Your task to perform on an android device: turn off priority inbox in the gmail app Image 0: 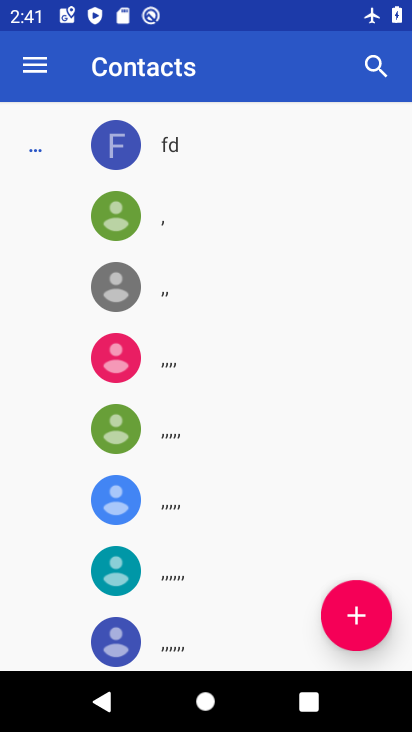
Step 0: press home button
Your task to perform on an android device: turn off priority inbox in the gmail app Image 1: 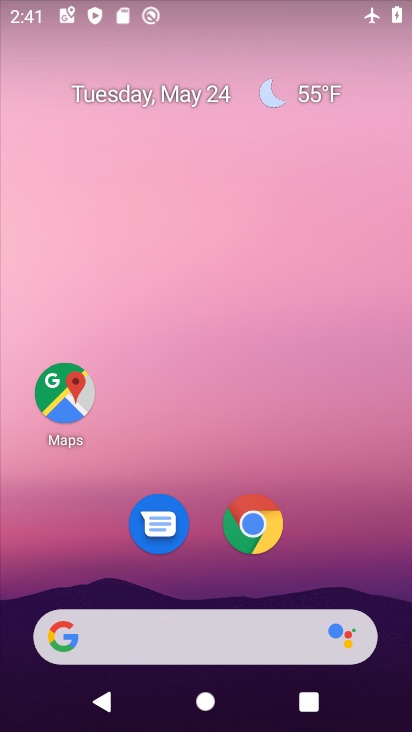
Step 1: drag from (296, 552) to (346, 71)
Your task to perform on an android device: turn off priority inbox in the gmail app Image 2: 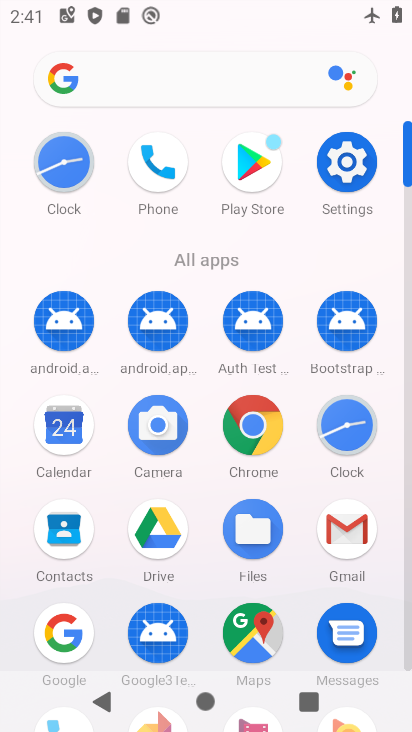
Step 2: click (340, 522)
Your task to perform on an android device: turn off priority inbox in the gmail app Image 3: 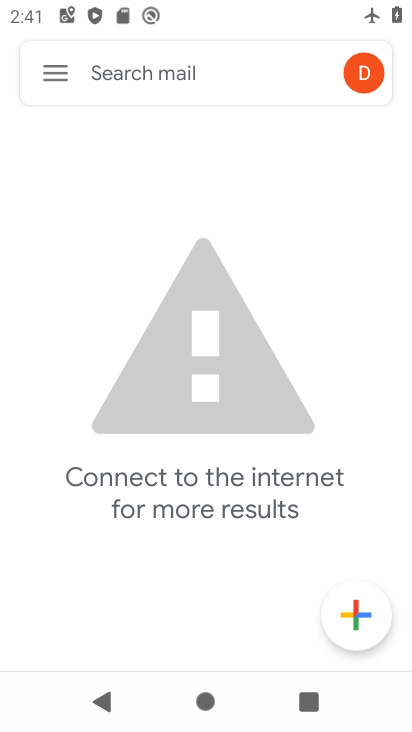
Step 3: click (57, 72)
Your task to perform on an android device: turn off priority inbox in the gmail app Image 4: 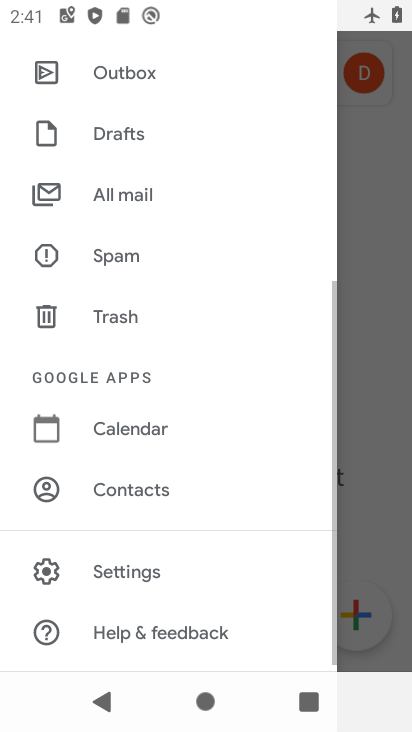
Step 4: click (130, 567)
Your task to perform on an android device: turn off priority inbox in the gmail app Image 5: 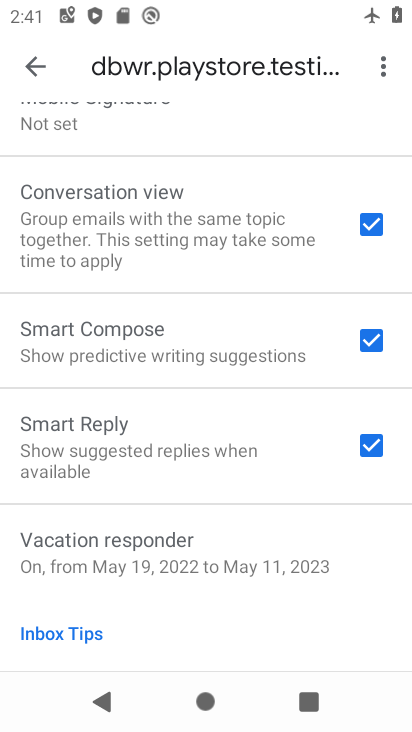
Step 5: drag from (184, 234) to (219, 586)
Your task to perform on an android device: turn off priority inbox in the gmail app Image 6: 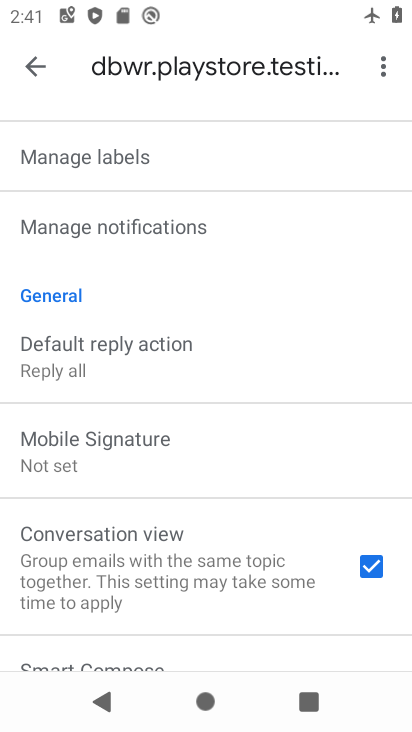
Step 6: drag from (225, 247) to (235, 606)
Your task to perform on an android device: turn off priority inbox in the gmail app Image 7: 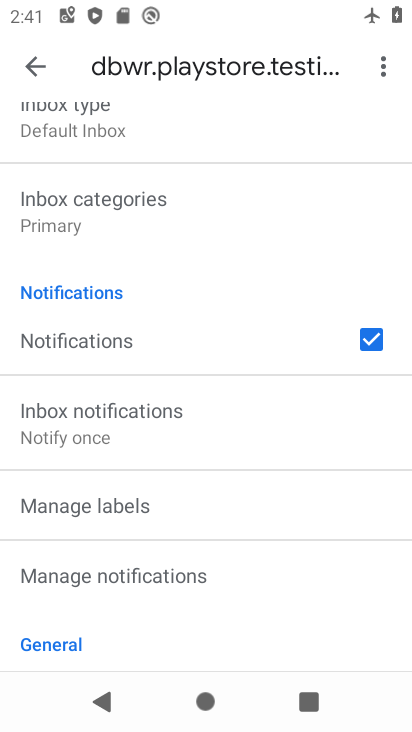
Step 7: drag from (155, 216) to (169, 394)
Your task to perform on an android device: turn off priority inbox in the gmail app Image 8: 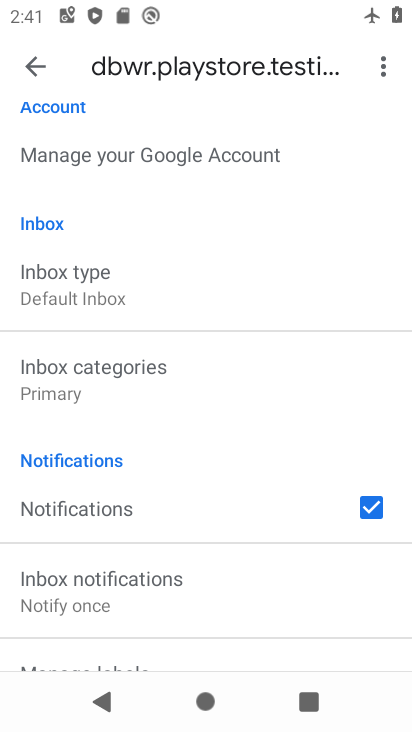
Step 8: click (103, 286)
Your task to perform on an android device: turn off priority inbox in the gmail app Image 9: 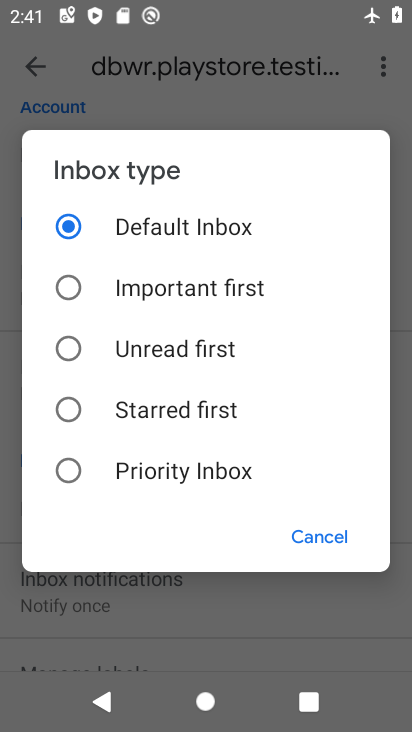
Step 9: click (74, 287)
Your task to perform on an android device: turn off priority inbox in the gmail app Image 10: 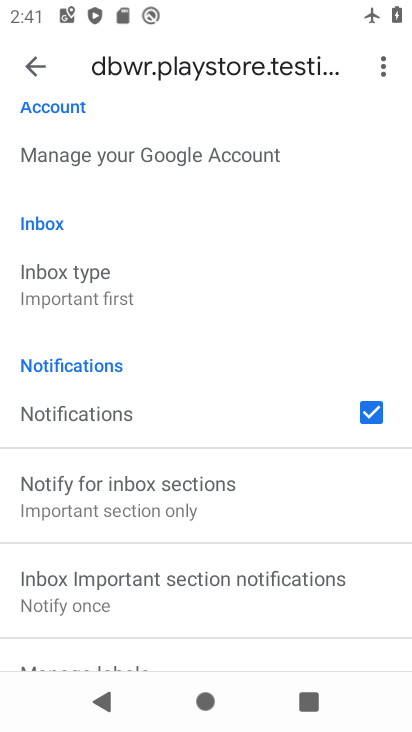
Step 10: task complete